Your task to perform on an android device: stop showing notifications on the lock screen Image 0: 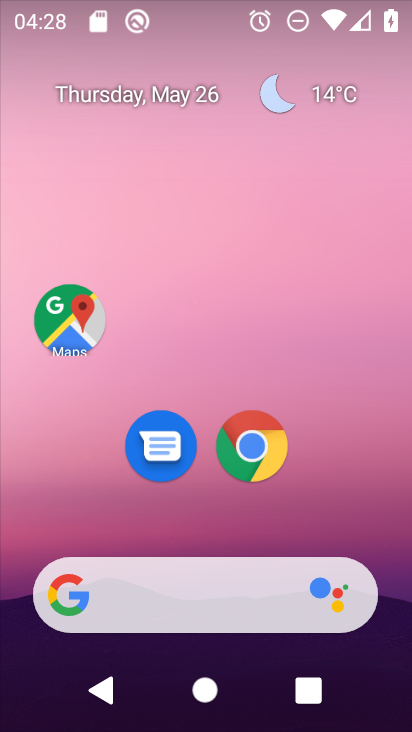
Step 0: drag from (315, 337) to (326, 4)
Your task to perform on an android device: stop showing notifications on the lock screen Image 1: 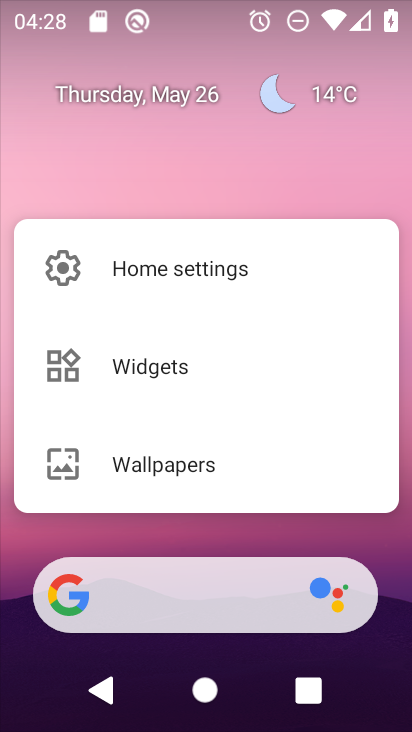
Step 1: drag from (380, 553) to (349, 4)
Your task to perform on an android device: stop showing notifications on the lock screen Image 2: 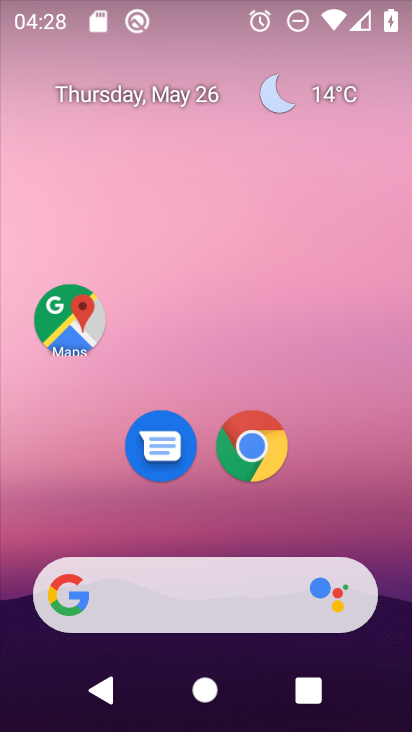
Step 2: drag from (320, 522) to (332, 4)
Your task to perform on an android device: stop showing notifications on the lock screen Image 3: 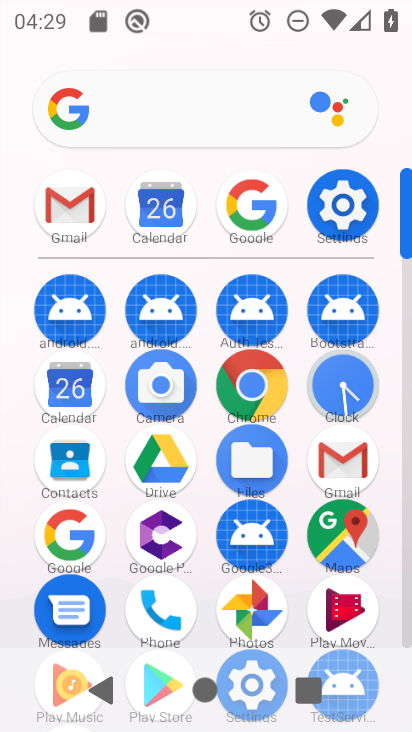
Step 3: click (339, 206)
Your task to perform on an android device: stop showing notifications on the lock screen Image 4: 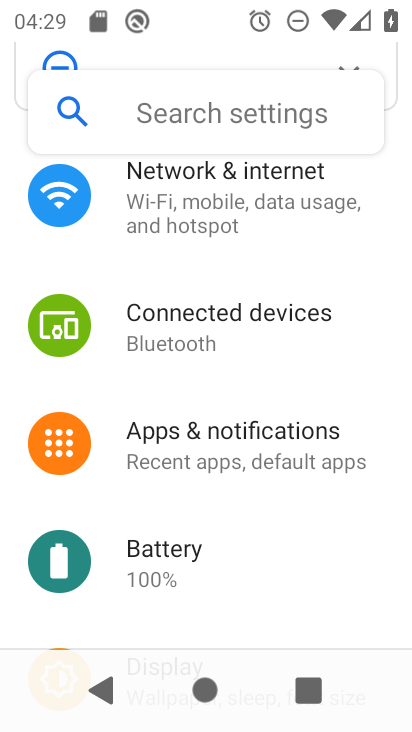
Step 4: click (248, 451)
Your task to perform on an android device: stop showing notifications on the lock screen Image 5: 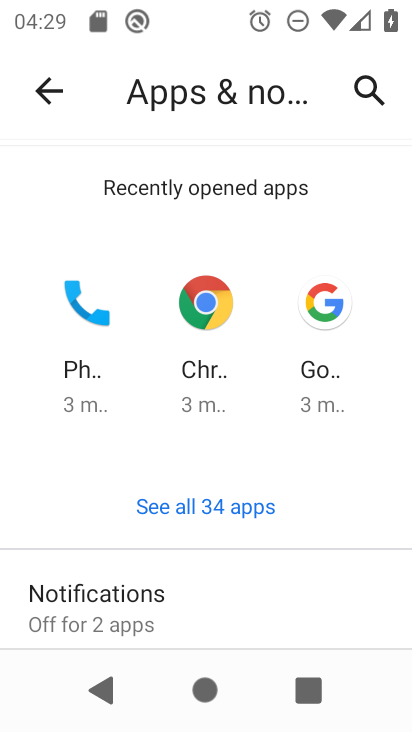
Step 5: drag from (239, 578) to (234, 312)
Your task to perform on an android device: stop showing notifications on the lock screen Image 6: 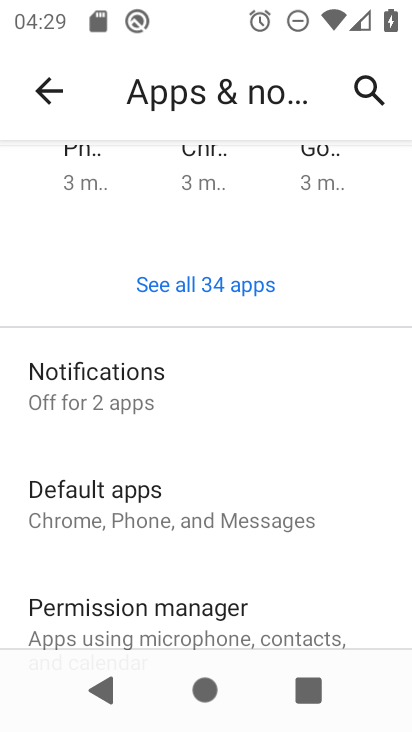
Step 6: click (68, 398)
Your task to perform on an android device: stop showing notifications on the lock screen Image 7: 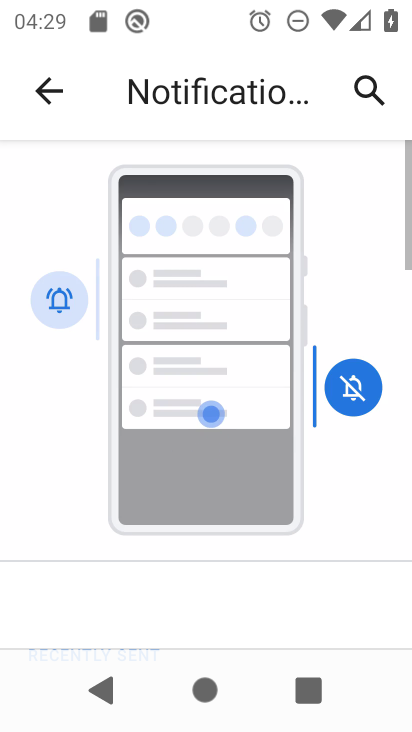
Step 7: drag from (172, 586) to (177, 181)
Your task to perform on an android device: stop showing notifications on the lock screen Image 8: 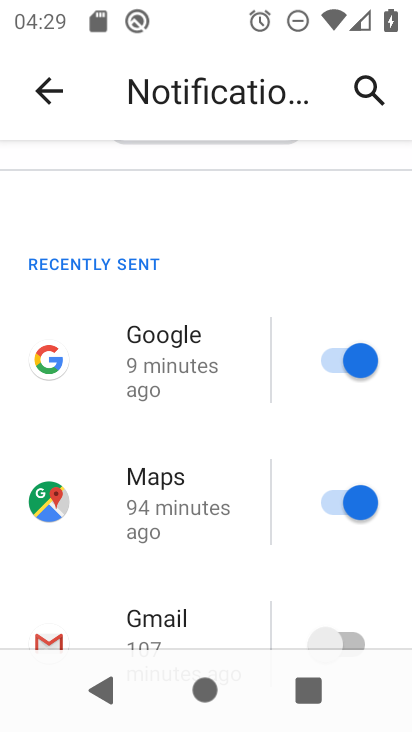
Step 8: drag from (159, 508) to (163, 136)
Your task to perform on an android device: stop showing notifications on the lock screen Image 9: 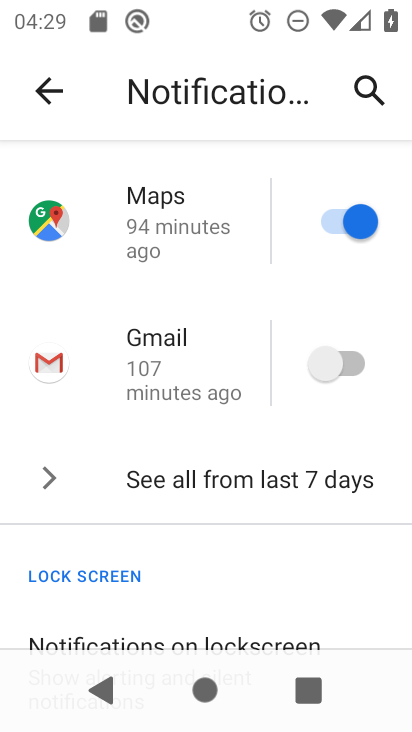
Step 9: drag from (145, 532) to (153, 225)
Your task to perform on an android device: stop showing notifications on the lock screen Image 10: 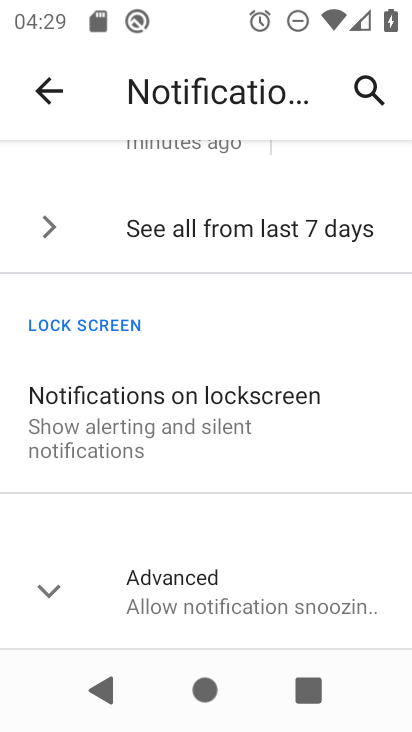
Step 10: click (86, 416)
Your task to perform on an android device: stop showing notifications on the lock screen Image 11: 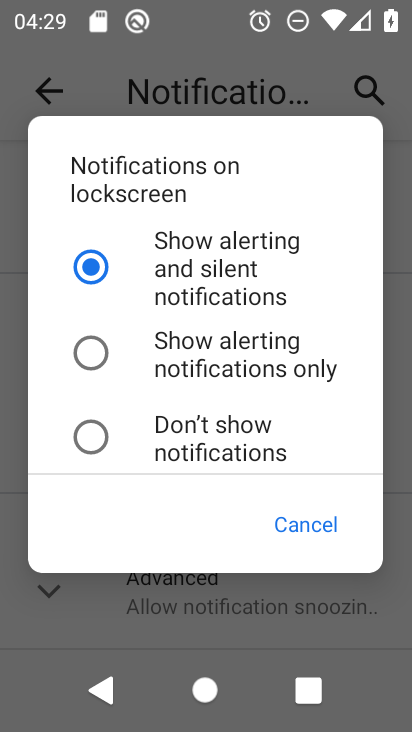
Step 11: click (86, 435)
Your task to perform on an android device: stop showing notifications on the lock screen Image 12: 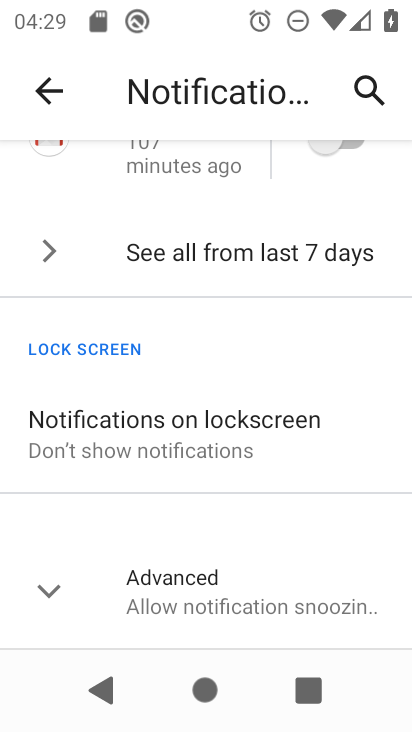
Step 12: task complete